Your task to perform on an android device: refresh tabs in the chrome app Image 0: 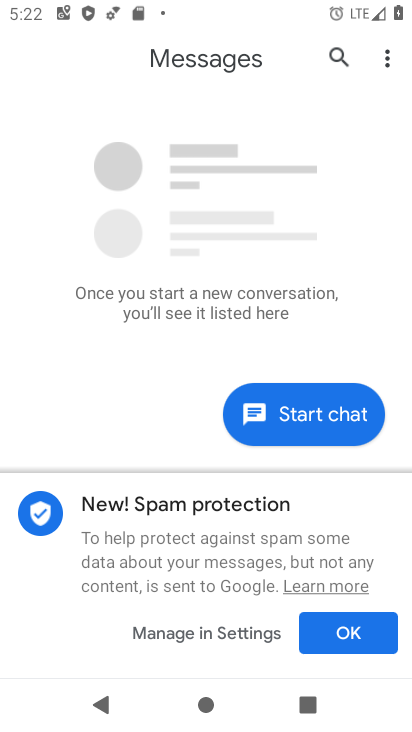
Step 0: press home button
Your task to perform on an android device: refresh tabs in the chrome app Image 1: 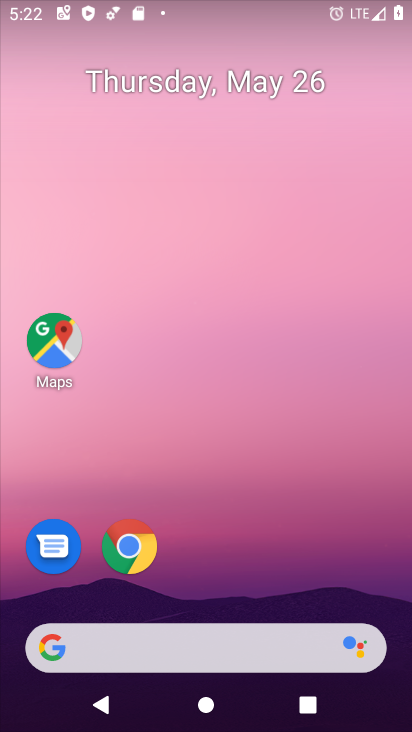
Step 1: click (116, 533)
Your task to perform on an android device: refresh tabs in the chrome app Image 2: 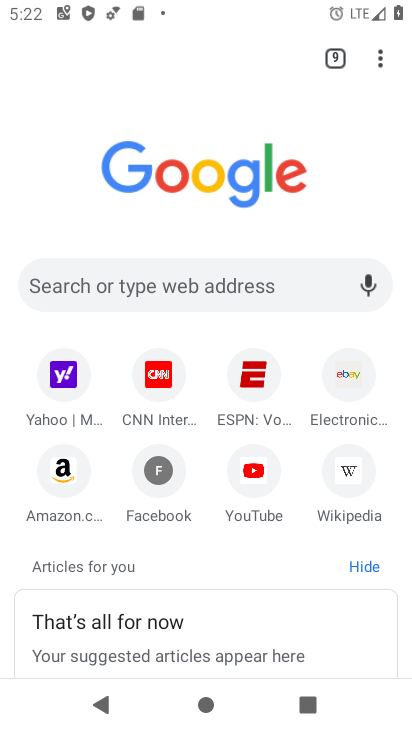
Step 2: click (375, 48)
Your task to perform on an android device: refresh tabs in the chrome app Image 3: 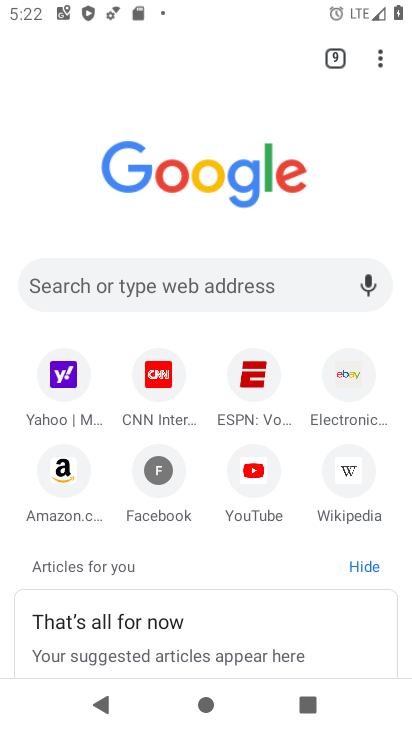
Step 3: task complete